Your task to perform on an android device: toggle wifi Image 0: 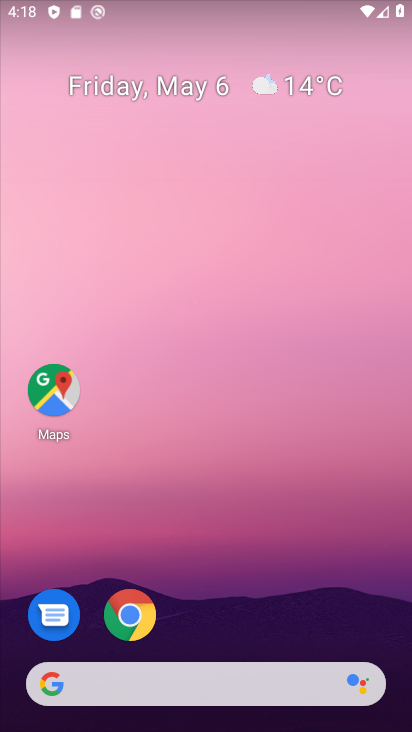
Step 0: drag from (309, 590) to (319, 107)
Your task to perform on an android device: toggle wifi Image 1: 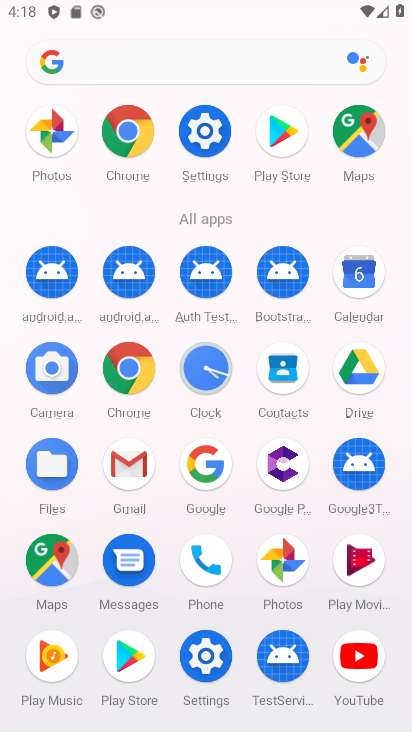
Step 1: click (216, 153)
Your task to perform on an android device: toggle wifi Image 2: 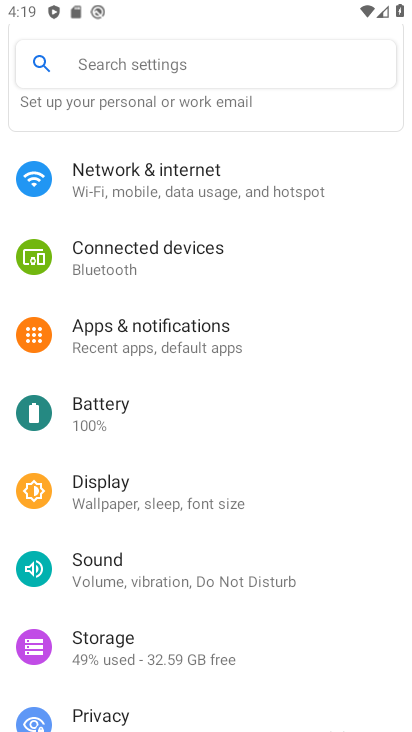
Step 2: click (212, 150)
Your task to perform on an android device: toggle wifi Image 3: 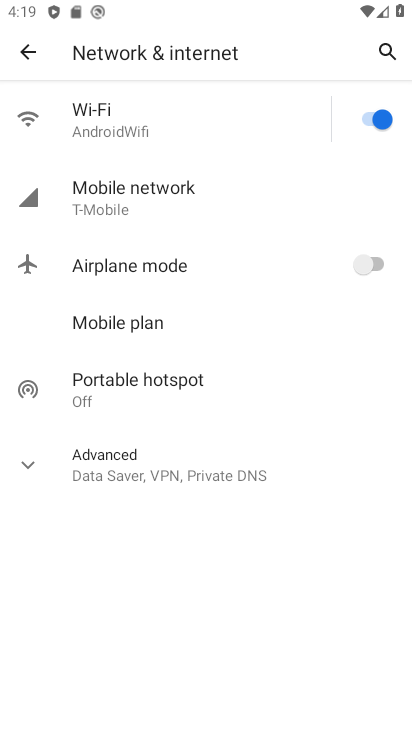
Step 3: click (366, 131)
Your task to perform on an android device: toggle wifi Image 4: 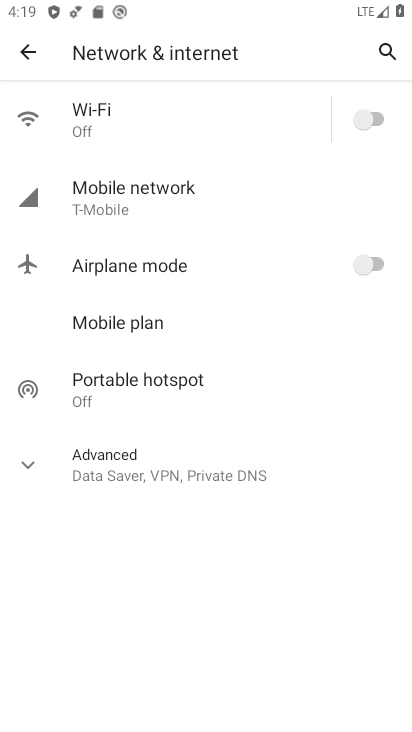
Step 4: task complete